Your task to perform on an android device: Go to accessibility settings Image 0: 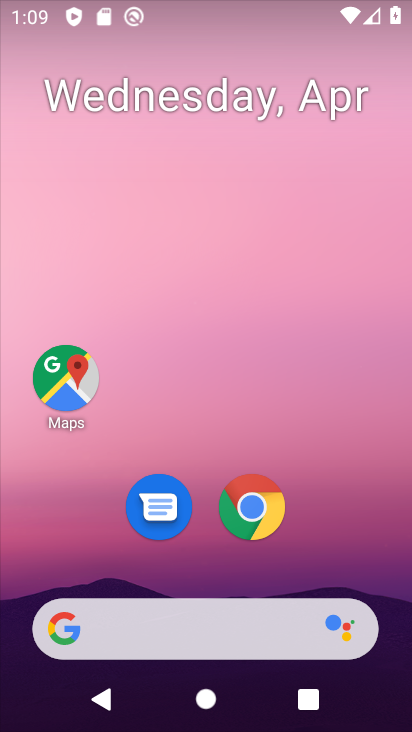
Step 0: drag from (192, 480) to (295, 49)
Your task to perform on an android device: Go to accessibility settings Image 1: 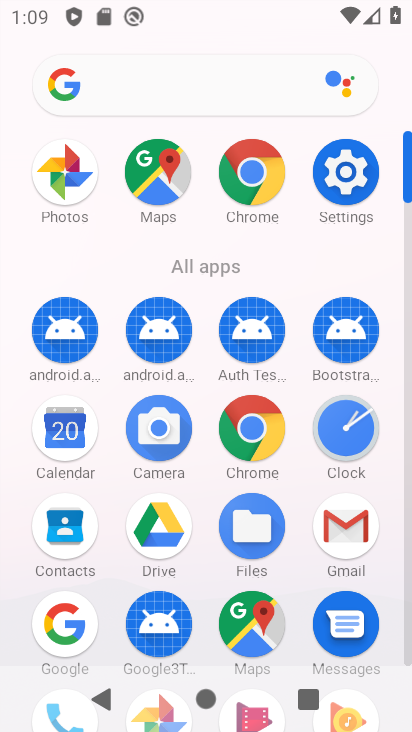
Step 1: drag from (186, 657) to (282, 309)
Your task to perform on an android device: Go to accessibility settings Image 2: 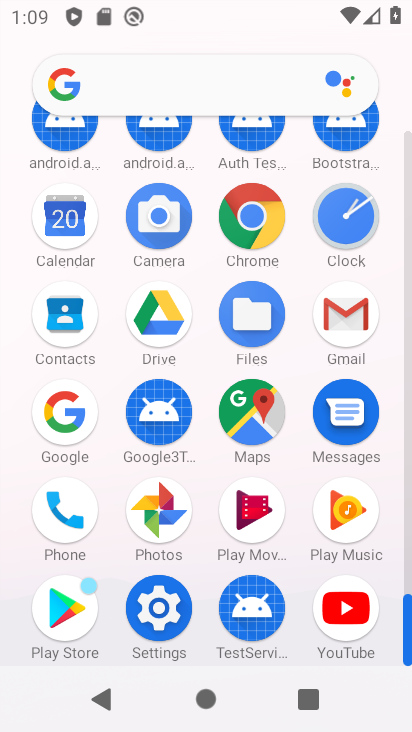
Step 2: click (148, 614)
Your task to perform on an android device: Go to accessibility settings Image 3: 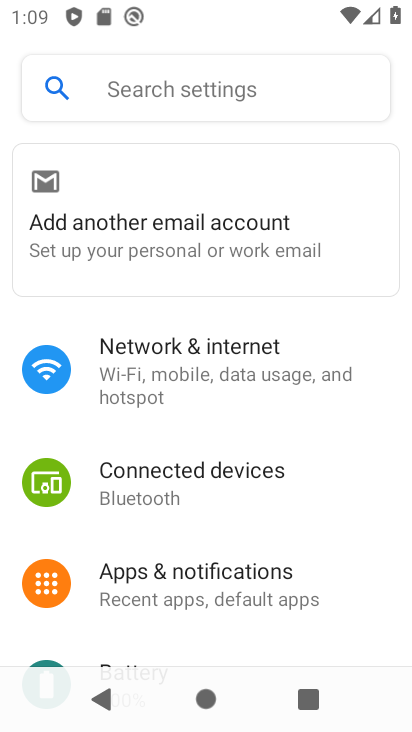
Step 3: drag from (220, 599) to (409, 46)
Your task to perform on an android device: Go to accessibility settings Image 4: 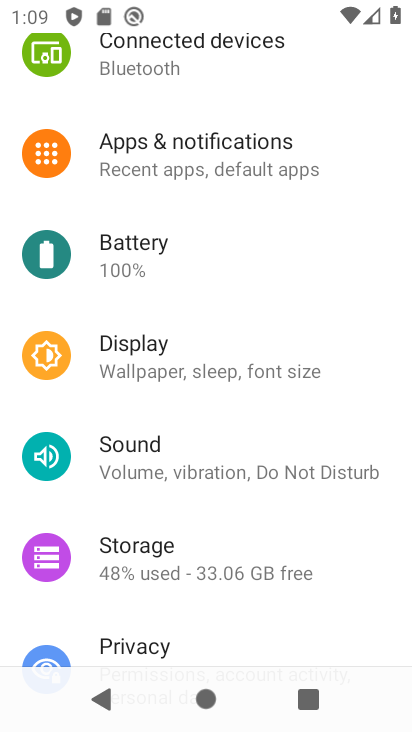
Step 4: drag from (238, 548) to (369, 88)
Your task to perform on an android device: Go to accessibility settings Image 5: 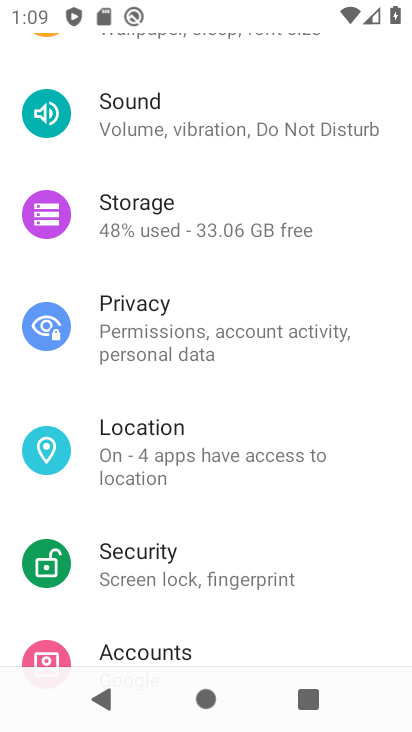
Step 5: drag from (221, 595) to (353, 140)
Your task to perform on an android device: Go to accessibility settings Image 6: 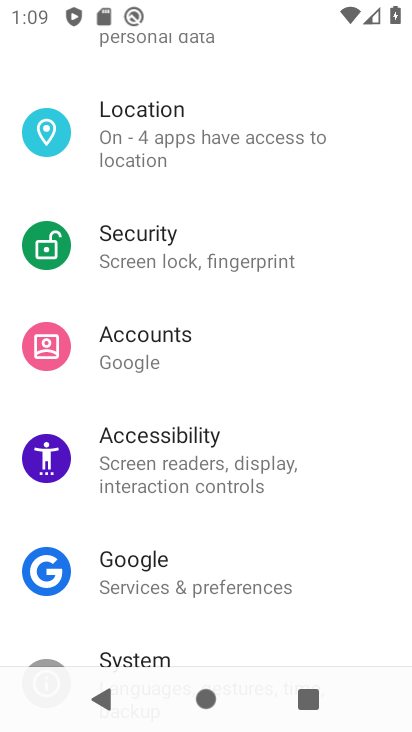
Step 6: click (229, 481)
Your task to perform on an android device: Go to accessibility settings Image 7: 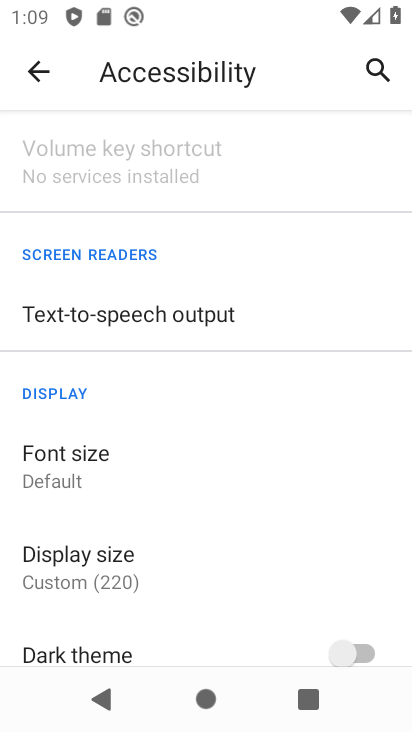
Step 7: task complete